Your task to perform on an android device: Go to battery settings Image 0: 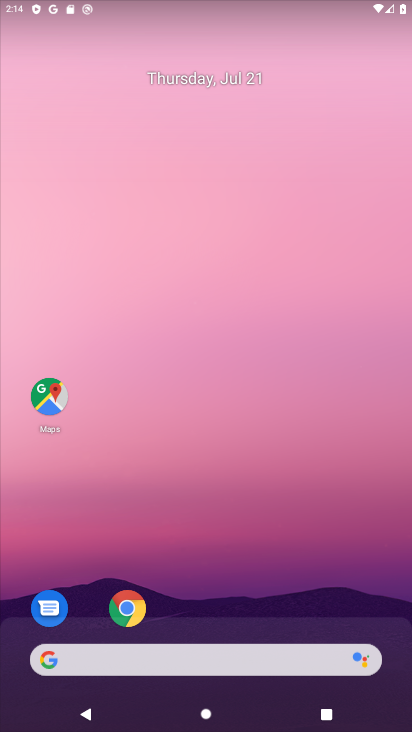
Step 0: drag from (208, 654) to (160, 132)
Your task to perform on an android device: Go to battery settings Image 1: 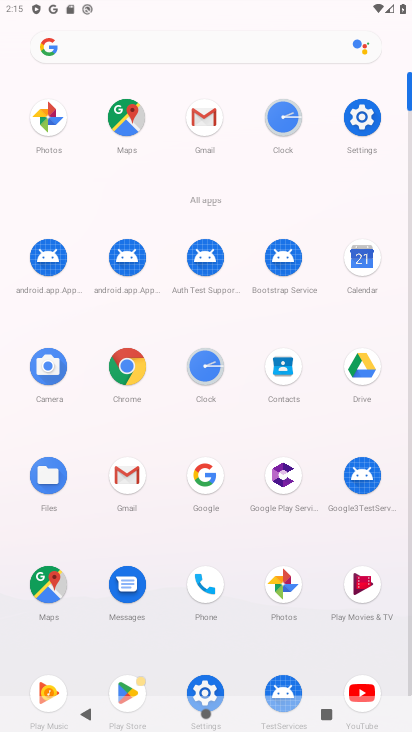
Step 1: click (360, 117)
Your task to perform on an android device: Go to battery settings Image 2: 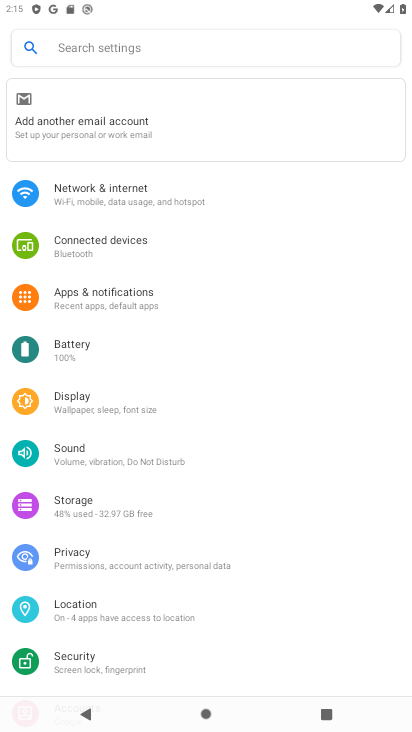
Step 2: click (65, 352)
Your task to perform on an android device: Go to battery settings Image 3: 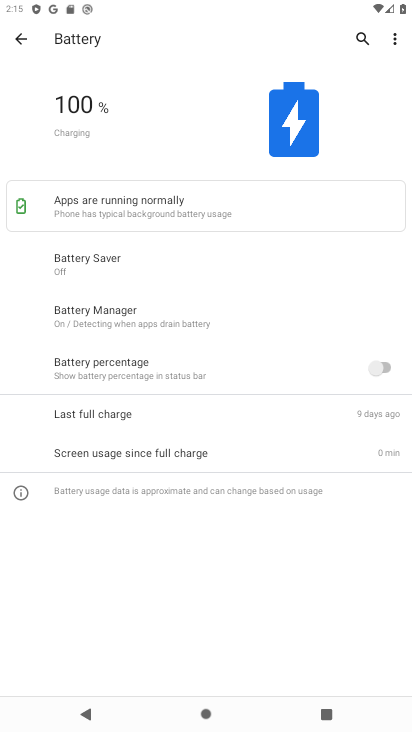
Step 3: task complete